Your task to perform on an android device: toggle notifications settings in the gmail app Image 0: 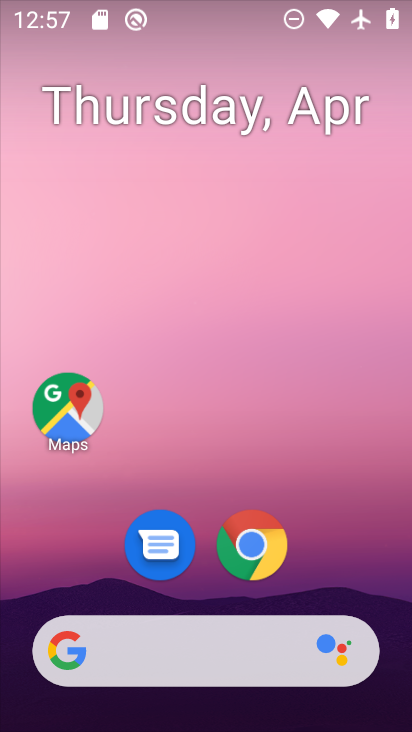
Step 0: drag from (296, 581) to (311, 110)
Your task to perform on an android device: toggle notifications settings in the gmail app Image 1: 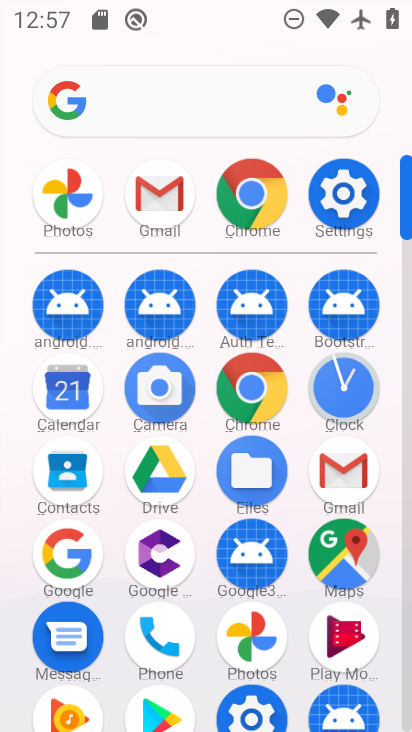
Step 1: click (351, 489)
Your task to perform on an android device: toggle notifications settings in the gmail app Image 2: 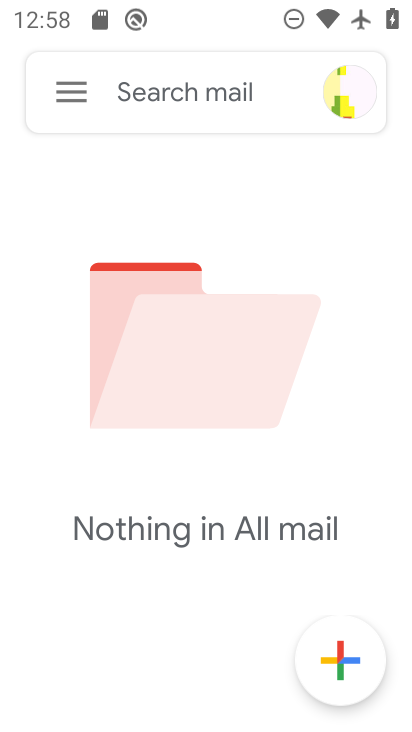
Step 2: click (64, 83)
Your task to perform on an android device: toggle notifications settings in the gmail app Image 3: 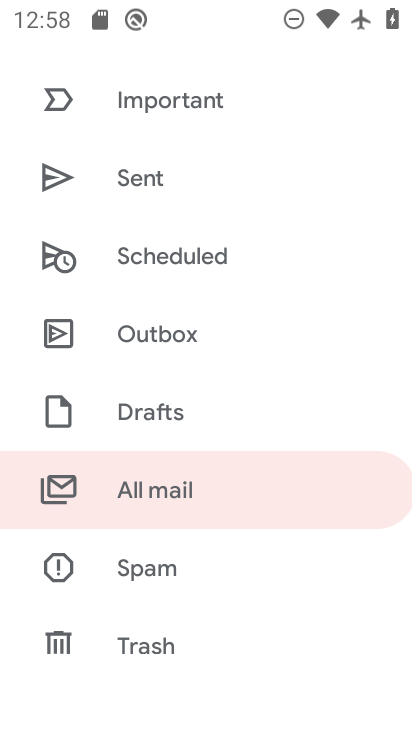
Step 3: drag from (143, 653) to (302, 96)
Your task to perform on an android device: toggle notifications settings in the gmail app Image 4: 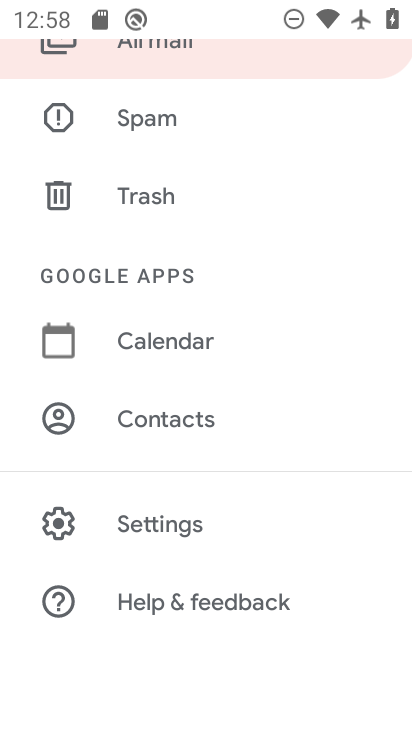
Step 4: click (185, 519)
Your task to perform on an android device: toggle notifications settings in the gmail app Image 5: 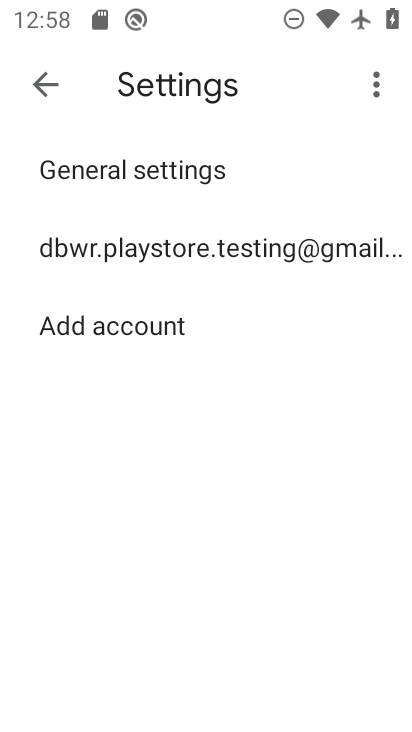
Step 5: click (214, 265)
Your task to perform on an android device: toggle notifications settings in the gmail app Image 6: 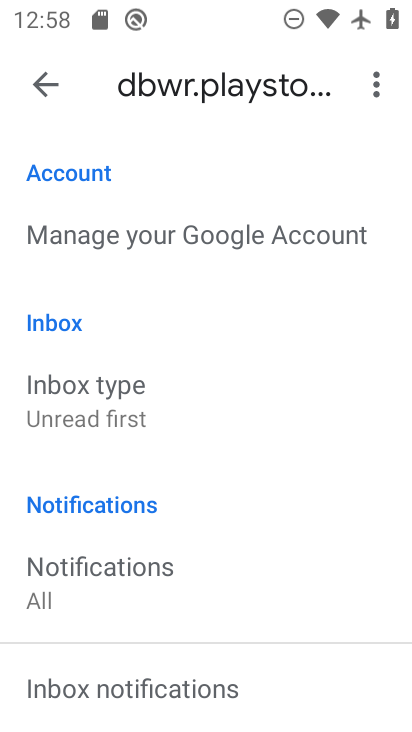
Step 6: drag from (109, 599) to (105, 299)
Your task to perform on an android device: toggle notifications settings in the gmail app Image 7: 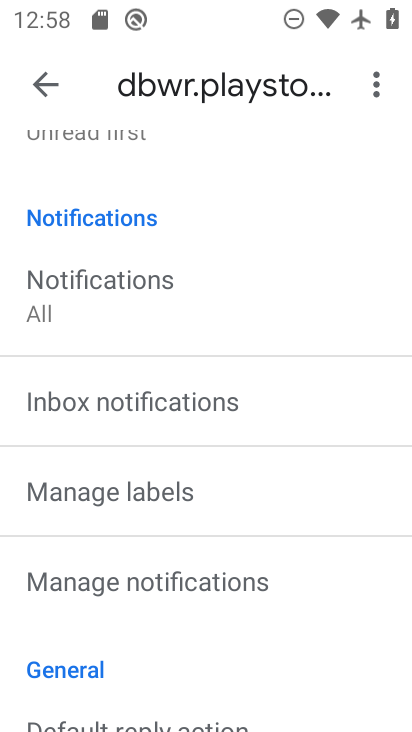
Step 7: click (92, 588)
Your task to perform on an android device: toggle notifications settings in the gmail app Image 8: 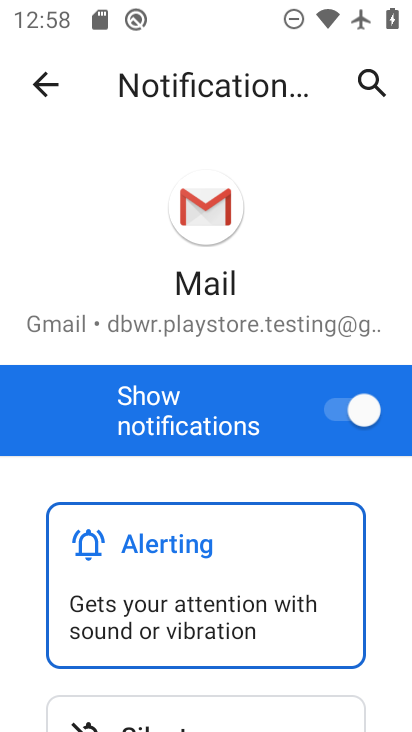
Step 8: click (359, 411)
Your task to perform on an android device: toggle notifications settings in the gmail app Image 9: 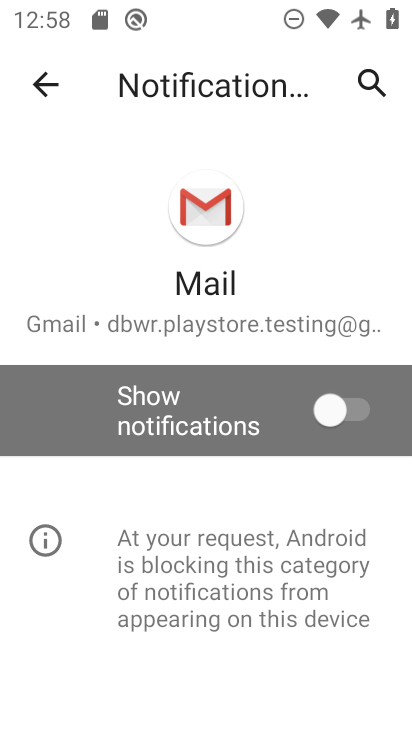
Step 9: task complete